Your task to perform on an android device: turn pop-ups off in chrome Image 0: 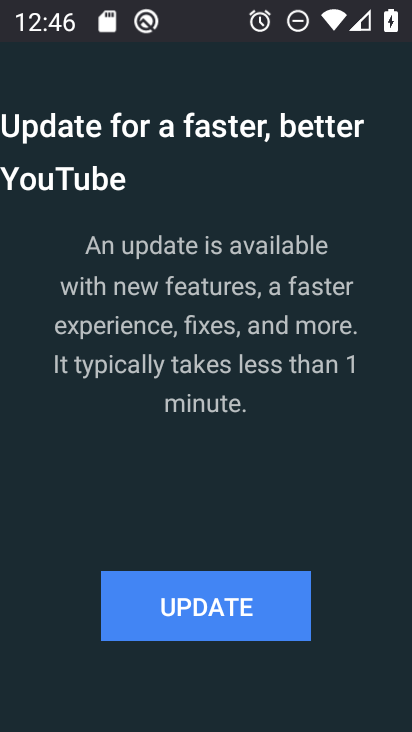
Step 0: press home button
Your task to perform on an android device: turn pop-ups off in chrome Image 1: 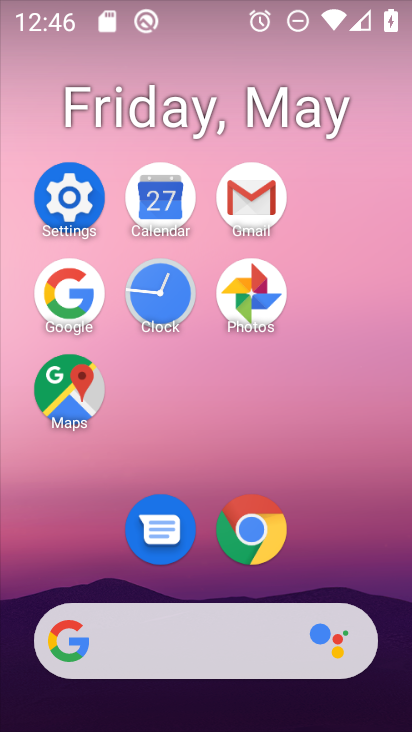
Step 1: click (255, 520)
Your task to perform on an android device: turn pop-ups off in chrome Image 2: 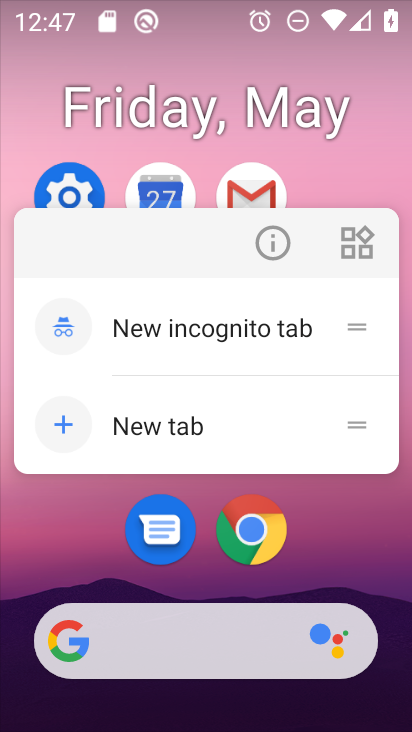
Step 2: click (255, 520)
Your task to perform on an android device: turn pop-ups off in chrome Image 3: 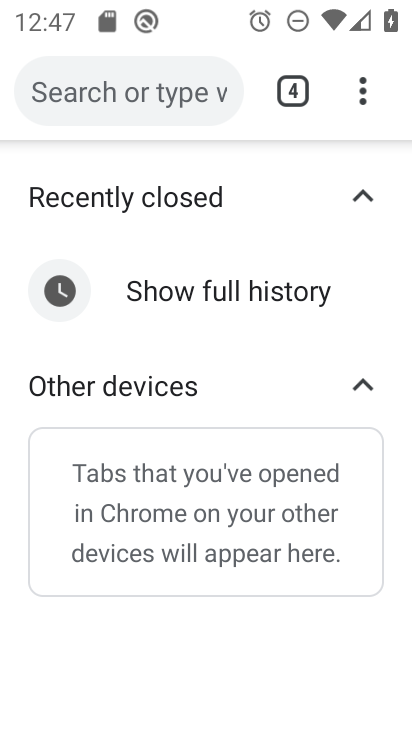
Step 3: click (360, 96)
Your task to perform on an android device: turn pop-ups off in chrome Image 4: 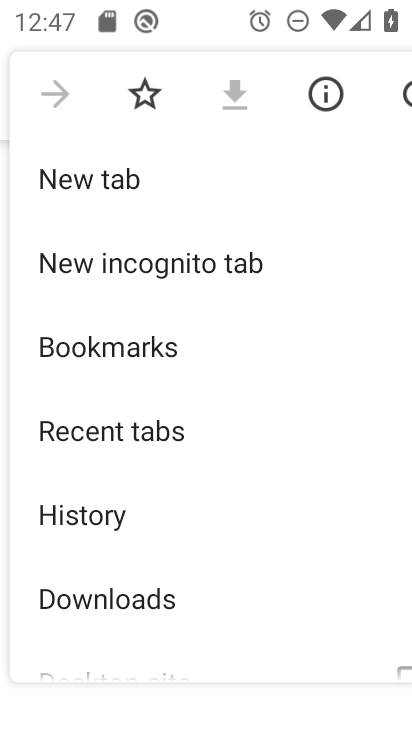
Step 4: drag from (203, 520) to (269, 149)
Your task to perform on an android device: turn pop-ups off in chrome Image 5: 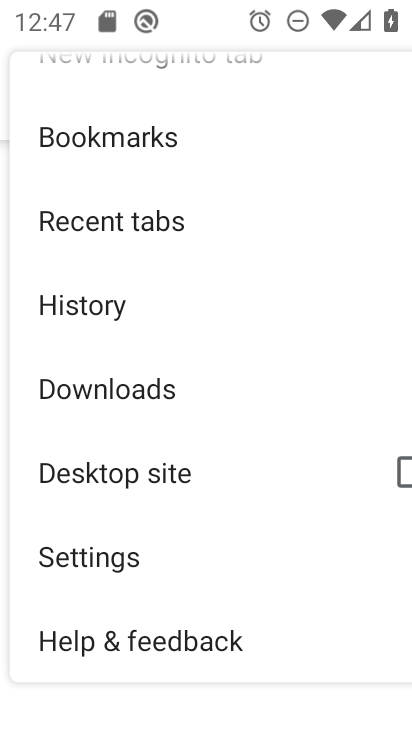
Step 5: click (193, 560)
Your task to perform on an android device: turn pop-ups off in chrome Image 6: 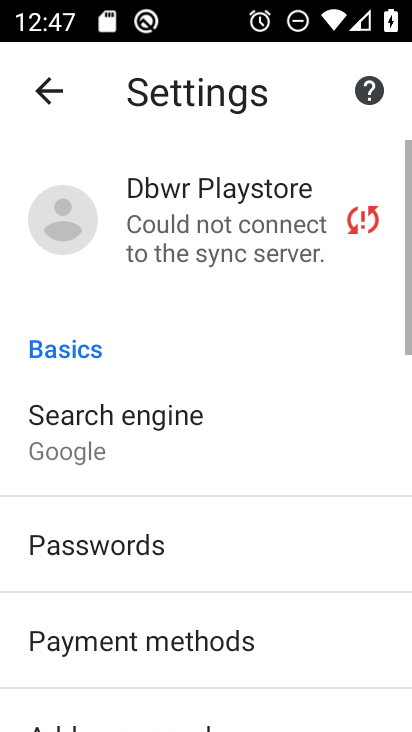
Step 6: drag from (193, 533) to (270, 92)
Your task to perform on an android device: turn pop-ups off in chrome Image 7: 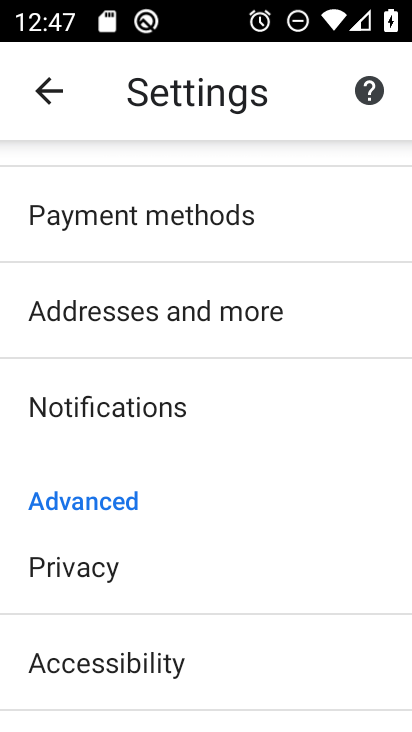
Step 7: drag from (244, 612) to (265, 238)
Your task to perform on an android device: turn pop-ups off in chrome Image 8: 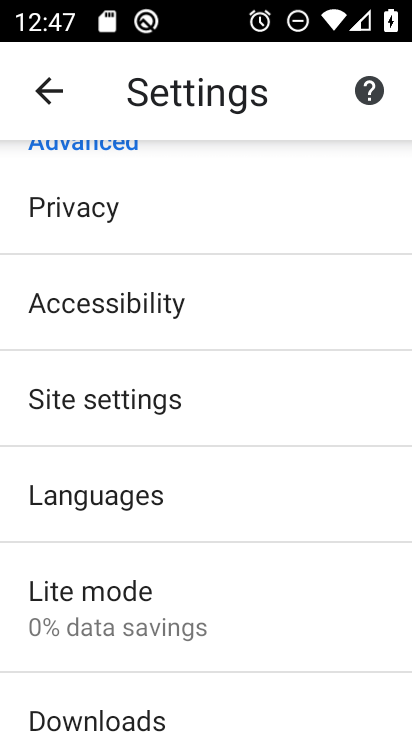
Step 8: click (203, 417)
Your task to perform on an android device: turn pop-ups off in chrome Image 9: 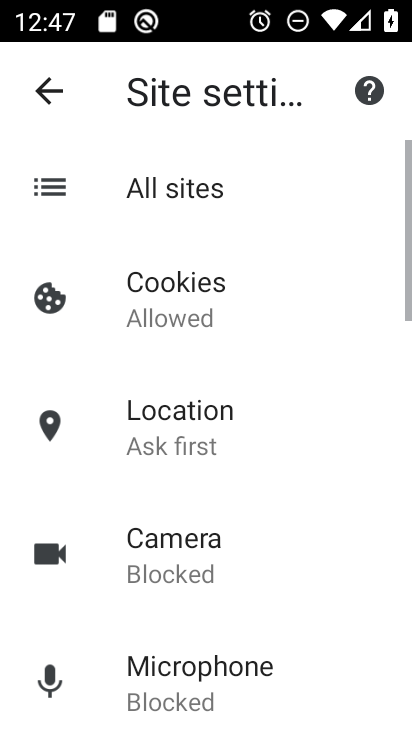
Step 9: drag from (270, 619) to (281, 202)
Your task to perform on an android device: turn pop-ups off in chrome Image 10: 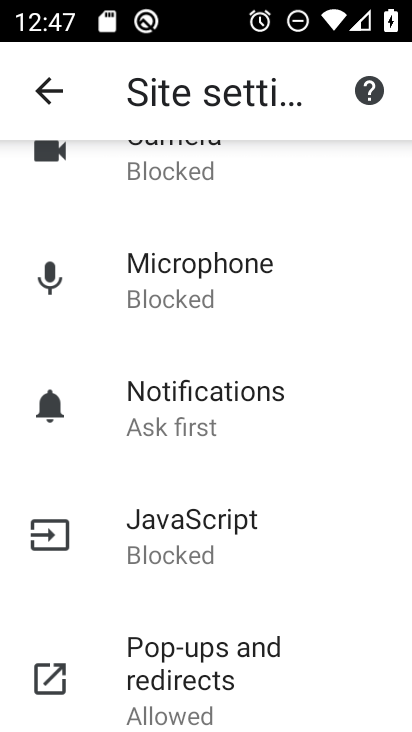
Step 10: click (272, 664)
Your task to perform on an android device: turn pop-ups off in chrome Image 11: 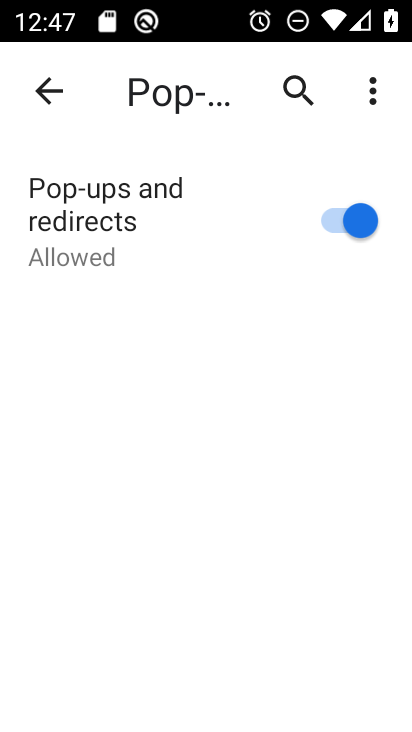
Step 11: click (372, 235)
Your task to perform on an android device: turn pop-ups off in chrome Image 12: 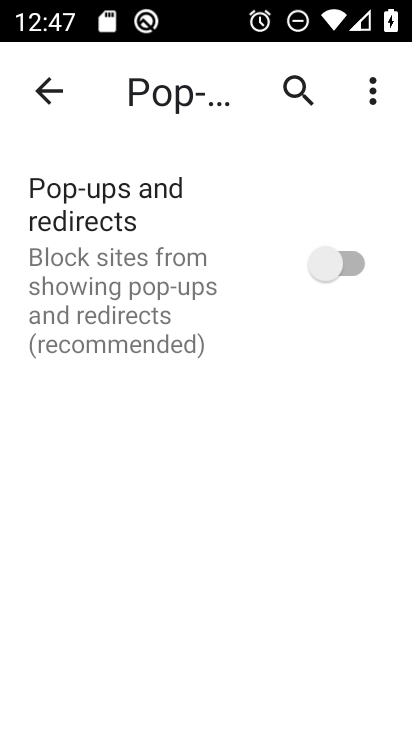
Step 12: task complete